Your task to perform on an android device: turn on showing notifications on the lock screen Image 0: 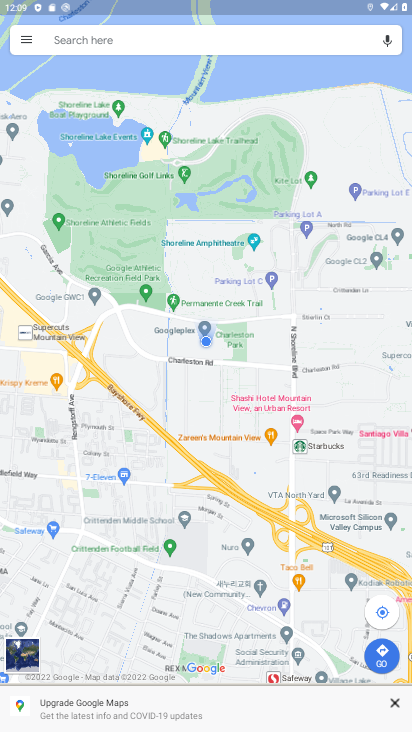
Step 0: press home button
Your task to perform on an android device: turn on showing notifications on the lock screen Image 1: 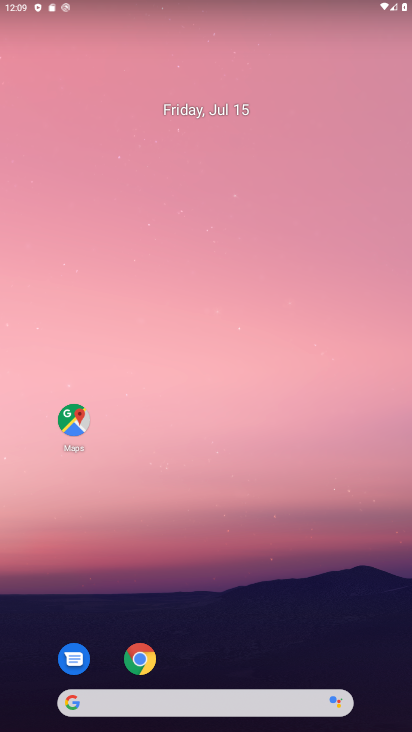
Step 1: drag from (199, 637) to (196, 170)
Your task to perform on an android device: turn on showing notifications on the lock screen Image 2: 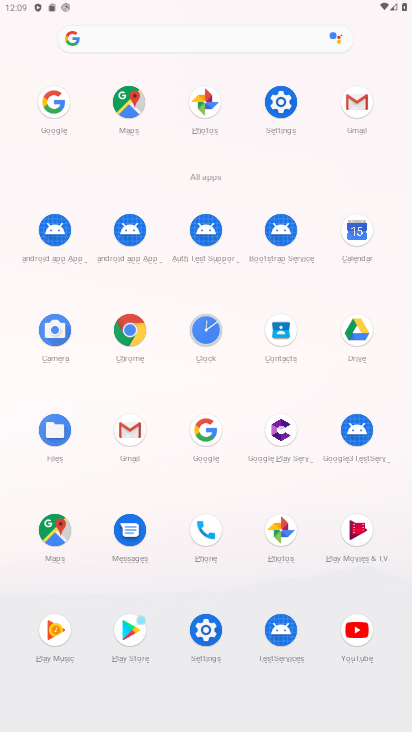
Step 2: click (270, 108)
Your task to perform on an android device: turn on showing notifications on the lock screen Image 3: 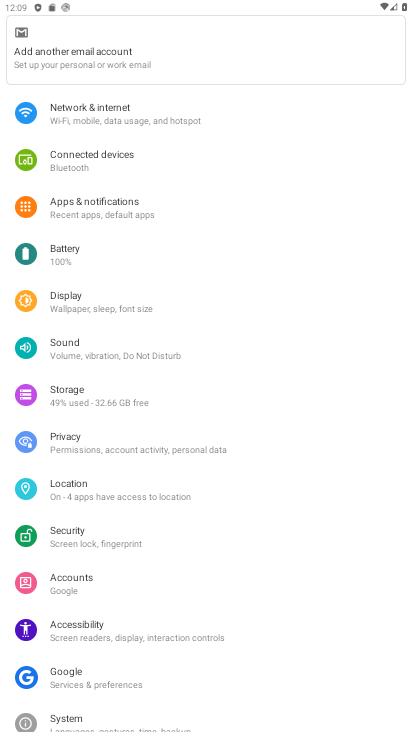
Step 3: click (121, 213)
Your task to perform on an android device: turn on showing notifications on the lock screen Image 4: 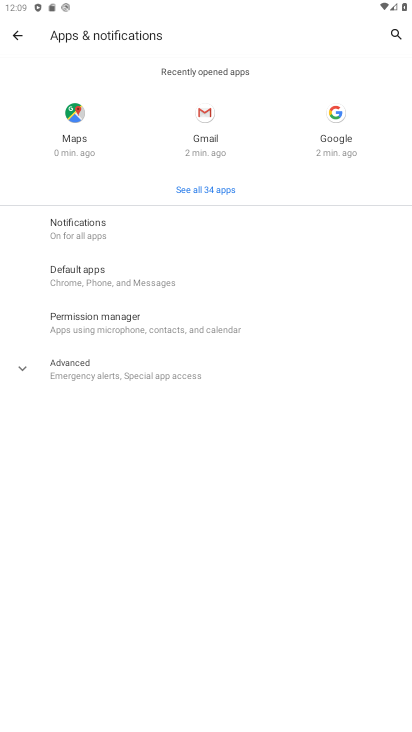
Step 4: click (74, 224)
Your task to perform on an android device: turn on showing notifications on the lock screen Image 5: 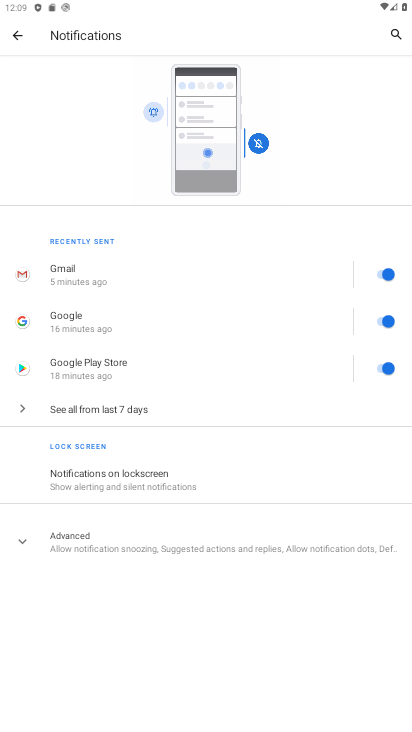
Step 5: click (175, 483)
Your task to perform on an android device: turn on showing notifications on the lock screen Image 6: 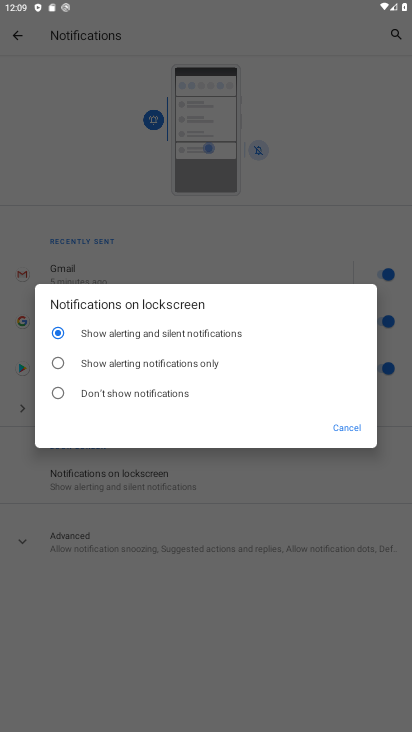
Step 6: task complete